Your task to perform on an android device: Go to Amazon Image 0: 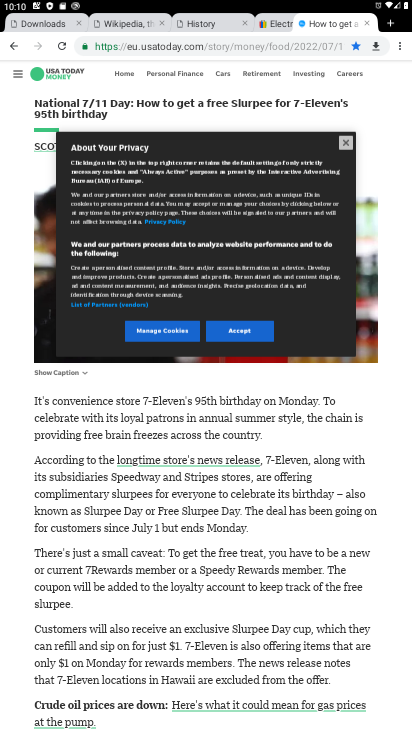
Step 0: click (388, 23)
Your task to perform on an android device: Go to Amazon Image 1: 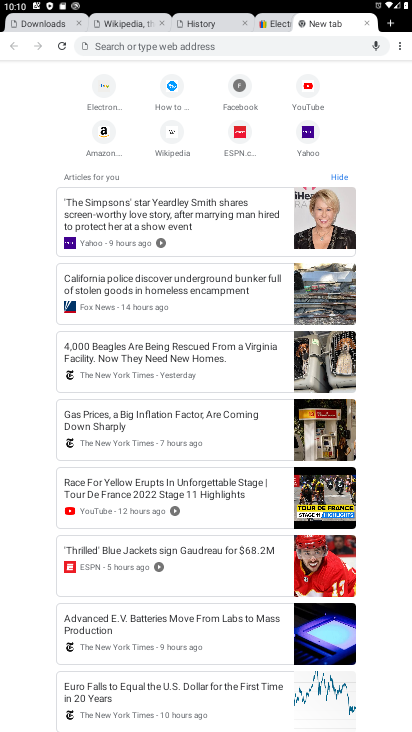
Step 1: click (92, 134)
Your task to perform on an android device: Go to Amazon Image 2: 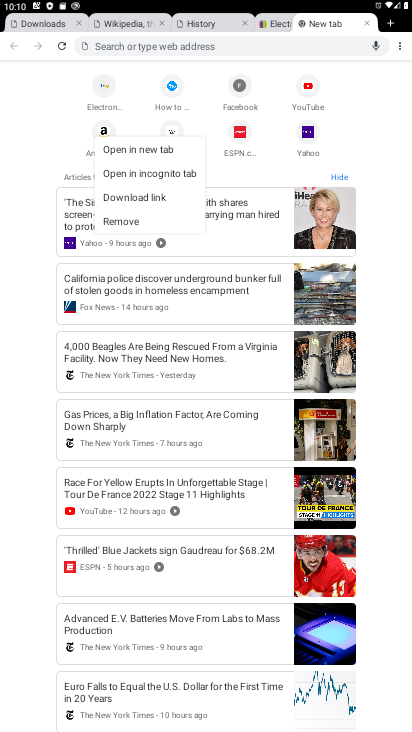
Step 2: click (102, 129)
Your task to perform on an android device: Go to Amazon Image 3: 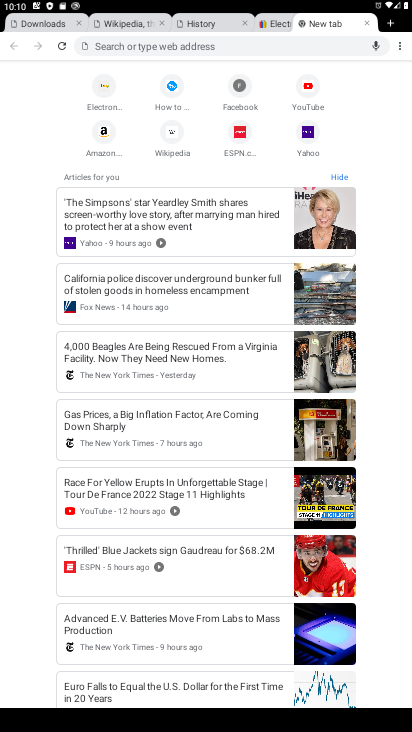
Step 3: click (102, 129)
Your task to perform on an android device: Go to Amazon Image 4: 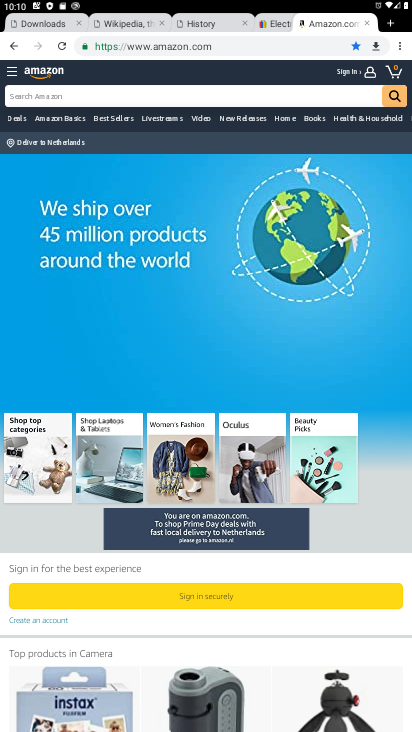
Step 4: task complete